Your task to perform on an android device: Search for seafood restaurants on Google Maps Image 0: 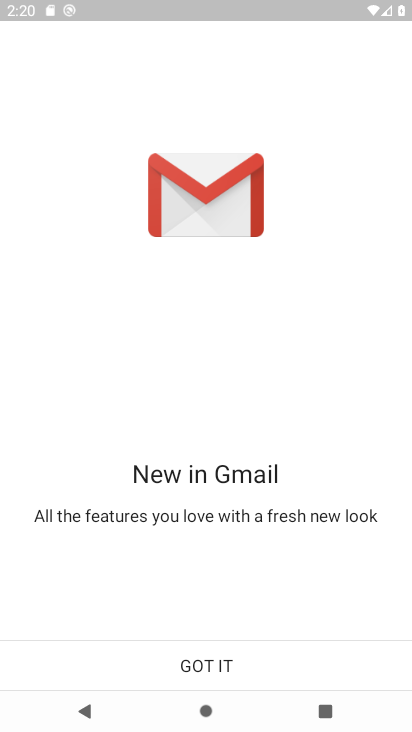
Step 0: press home button
Your task to perform on an android device: Search for seafood restaurants on Google Maps Image 1: 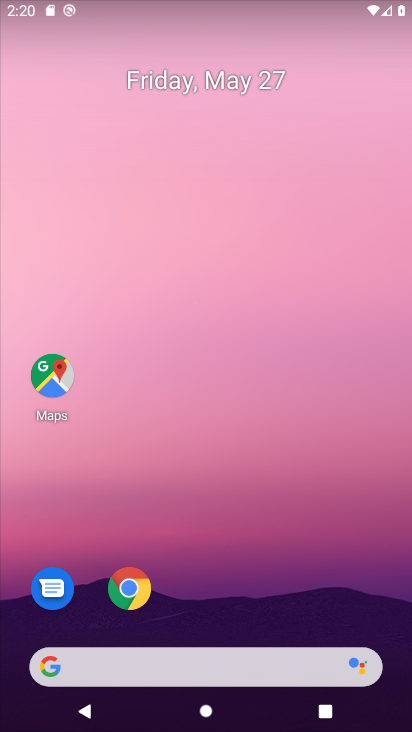
Step 1: click (40, 385)
Your task to perform on an android device: Search for seafood restaurants on Google Maps Image 2: 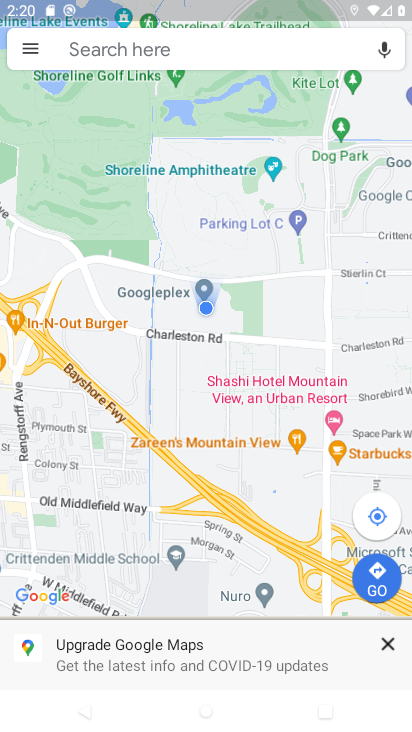
Step 2: click (184, 42)
Your task to perform on an android device: Search for seafood restaurants on Google Maps Image 3: 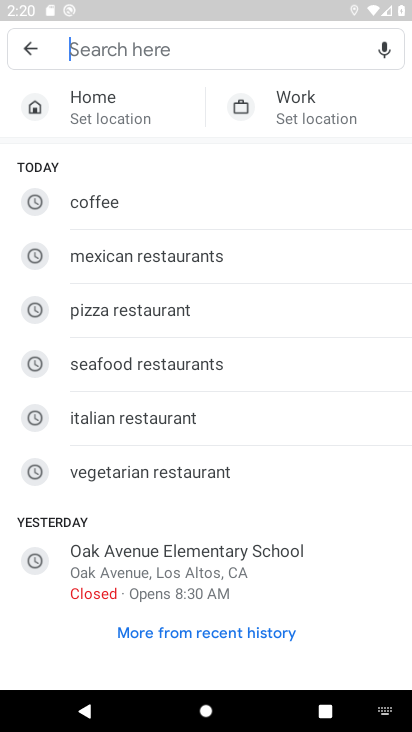
Step 3: type "seafood resstaurants"
Your task to perform on an android device: Search for seafood restaurants on Google Maps Image 4: 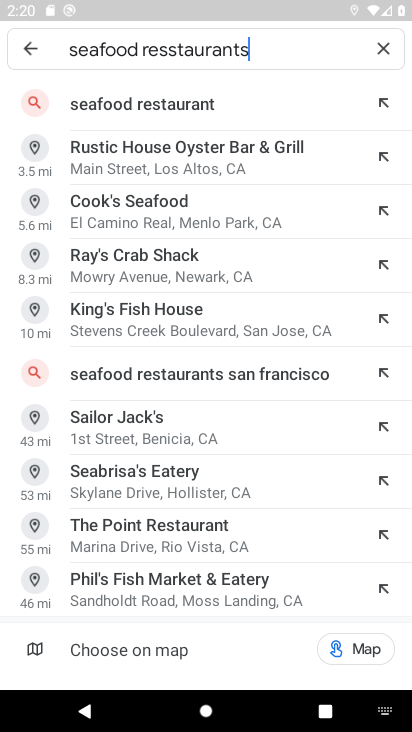
Step 4: click (133, 107)
Your task to perform on an android device: Search for seafood restaurants on Google Maps Image 5: 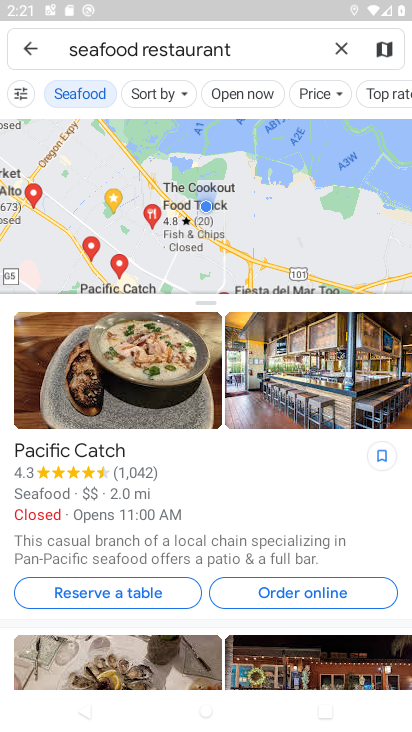
Step 5: task complete